Your task to perform on an android device: Go to Wikipedia Image 0: 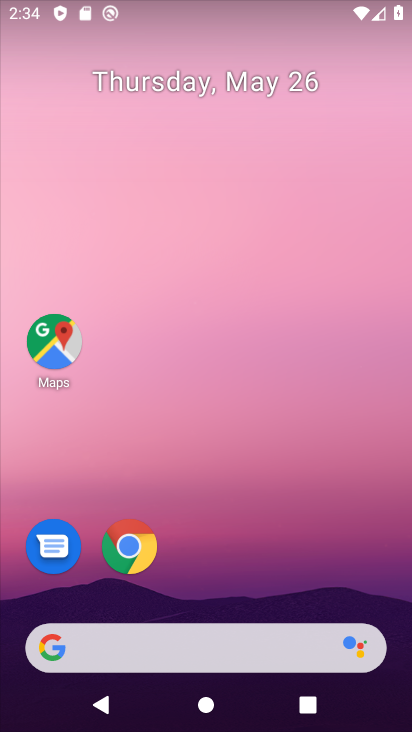
Step 0: click (141, 549)
Your task to perform on an android device: Go to Wikipedia Image 1: 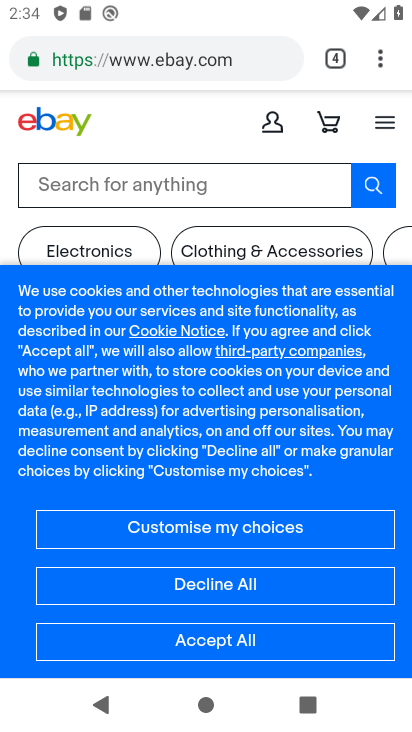
Step 1: click (330, 61)
Your task to perform on an android device: Go to Wikipedia Image 2: 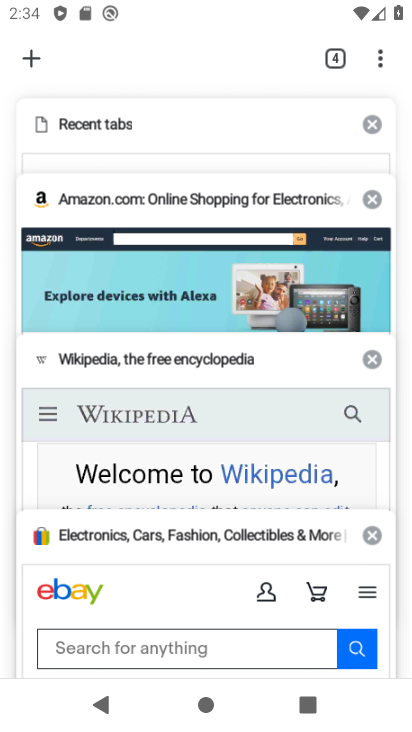
Step 2: click (143, 395)
Your task to perform on an android device: Go to Wikipedia Image 3: 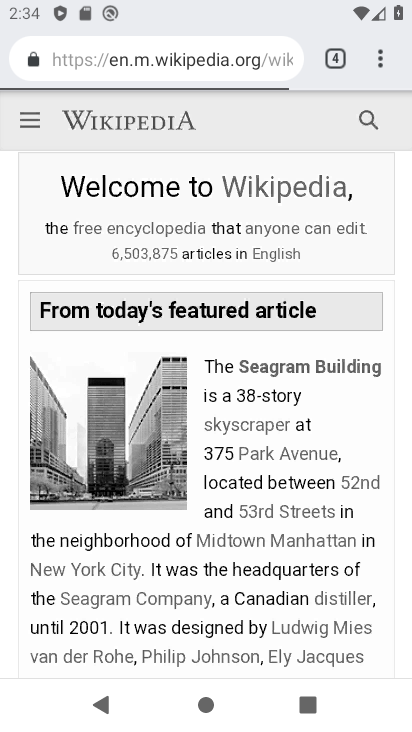
Step 3: task complete